Your task to perform on an android device: delete location history Image 0: 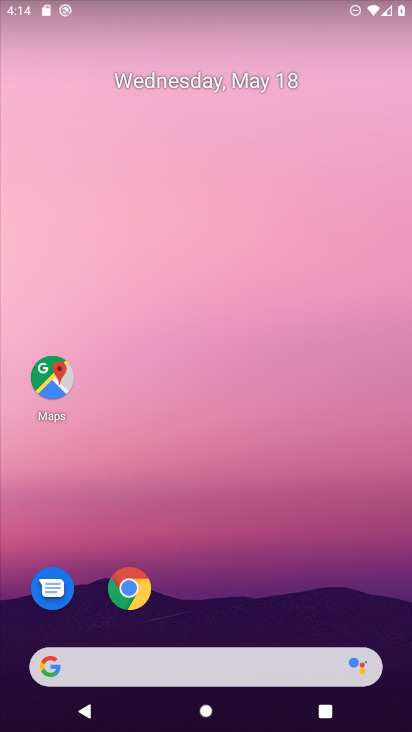
Step 0: drag from (270, 587) to (259, 159)
Your task to perform on an android device: delete location history Image 1: 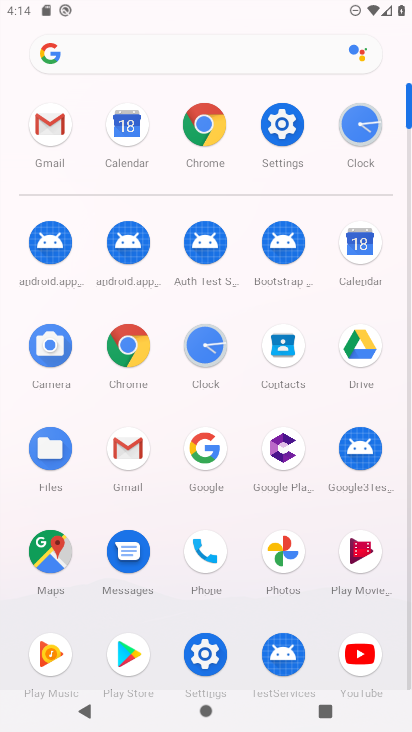
Step 1: click (276, 146)
Your task to perform on an android device: delete location history Image 2: 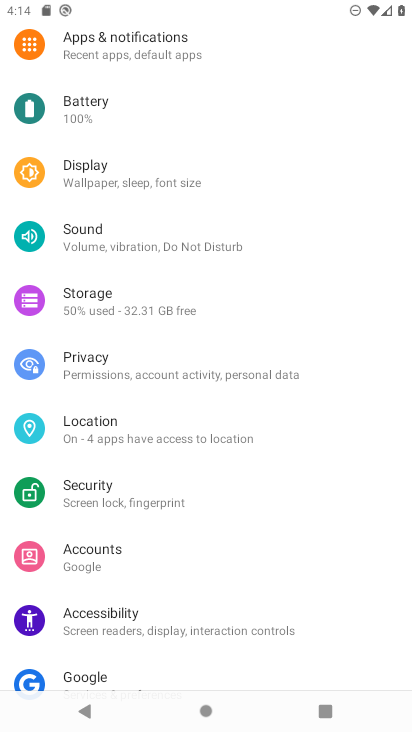
Step 2: click (126, 432)
Your task to perform on an android device: delete location history Image 3: 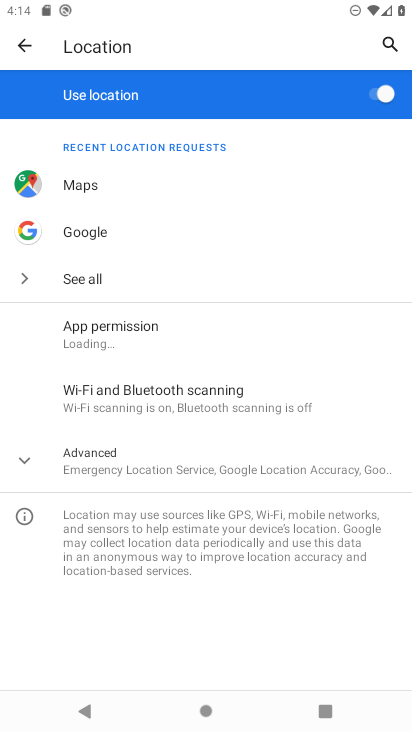
Step 3: click (158, 445)
Your task to perform on an android device: delete location history Image 4: 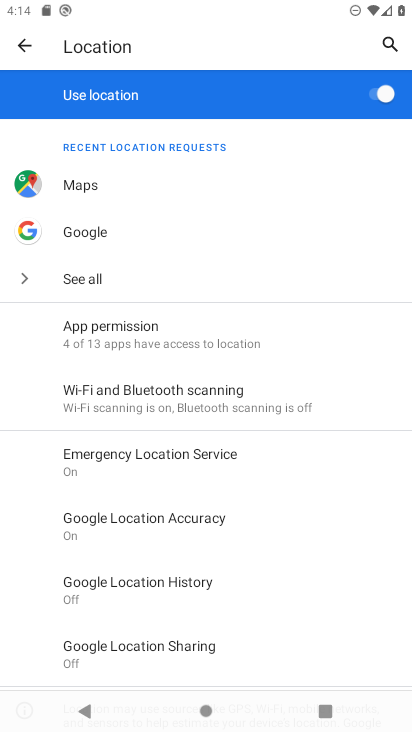
Step 4: click (216, 594)
Your task to perform on an android device: delete location history Image 5: 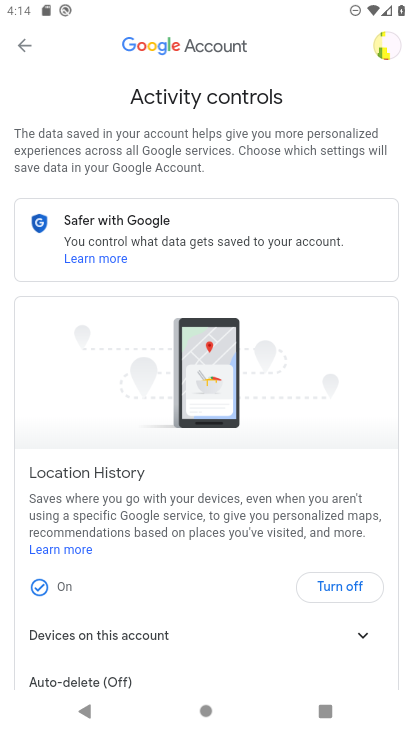
Step 5: click (329, 593)
Your task to perform on an android device: delete location history Image 6: 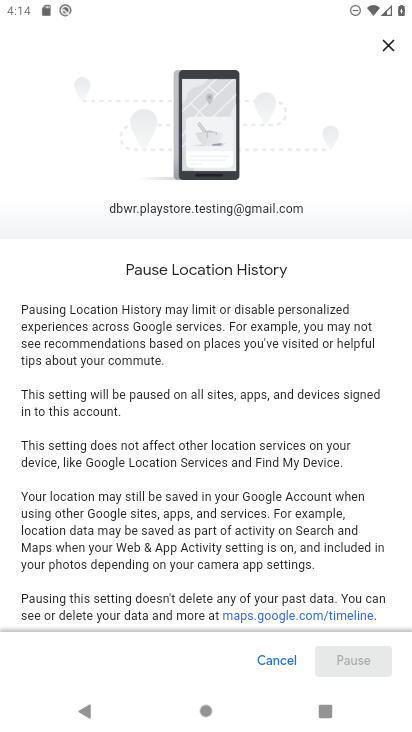
Step 6: drag from (326, 579) to (316, 90)
Your task to perform on an android device: delete location history Image 7: 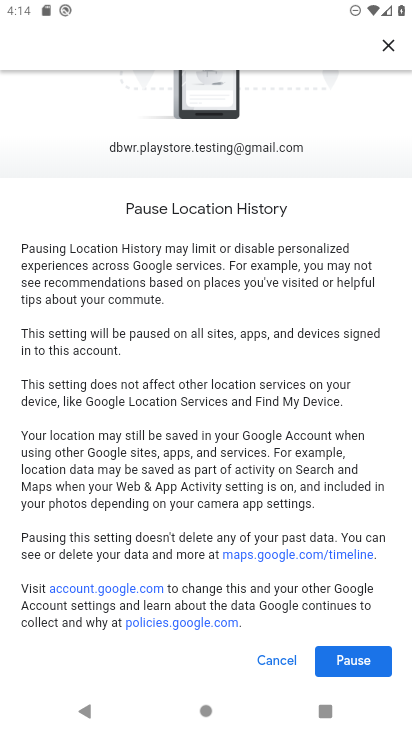
Step 7: click (354, 655)
Your task to perform on an android device: delete location history Image 8: 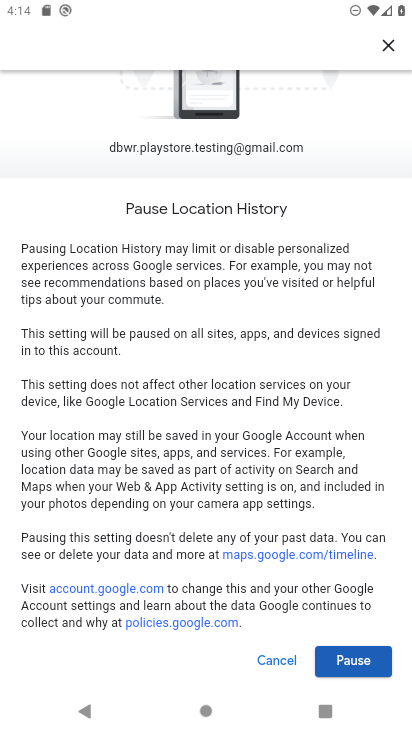
Step 8: click (335, 674)
Your task to perform on an android device: delete location history Image 9: 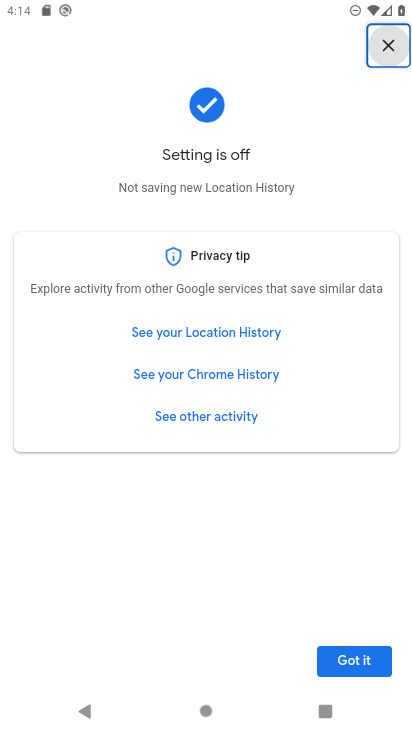
Step 9: click (376, 668)
Your task to perform on an android device: delete location history Image 10: 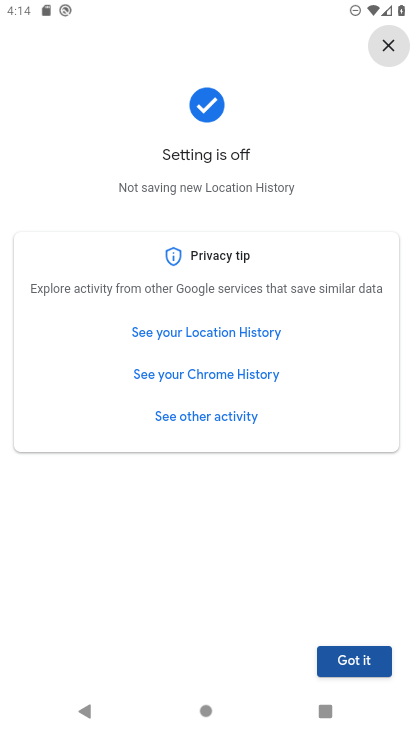
Step 10: task complete